Your task to perform on an android device: Open the map Image 0: 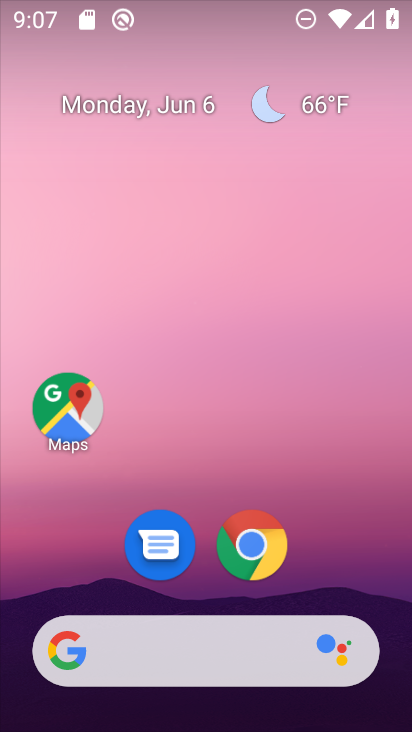
Step 0: click (71, 421)
Your task to perform on an android device: Open the map Image 1: 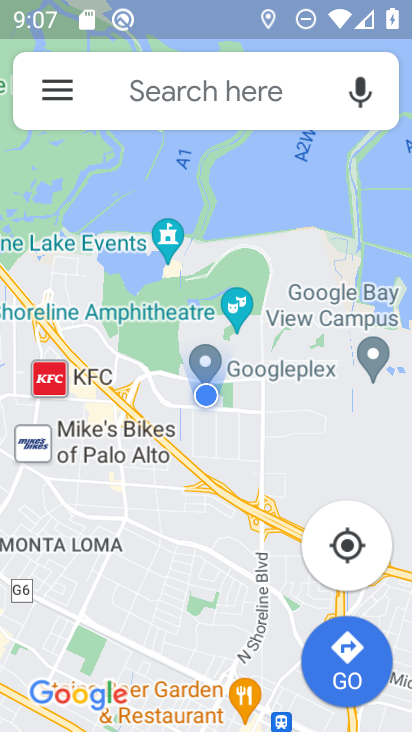
Step 1: task complete